Your task to perform on an android device: Open network settings Image 0: 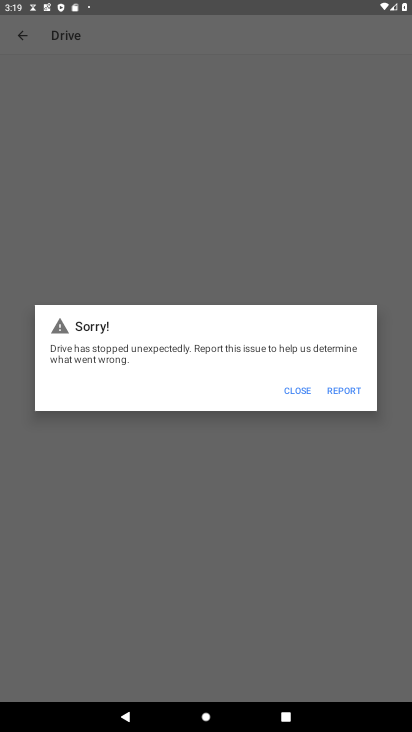
Step 0: press home button
Your task to perform on an android device: Open network settings Image 1: 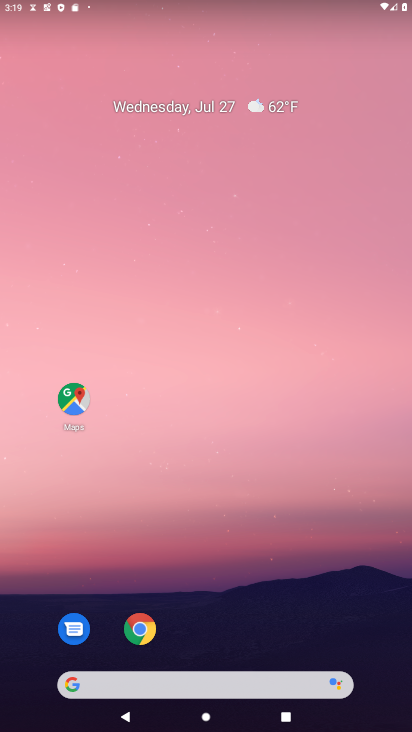
Step 1: drag from (222, 681) to (264, 2)
Your task to perform on an android device: Open network settings Image 2: 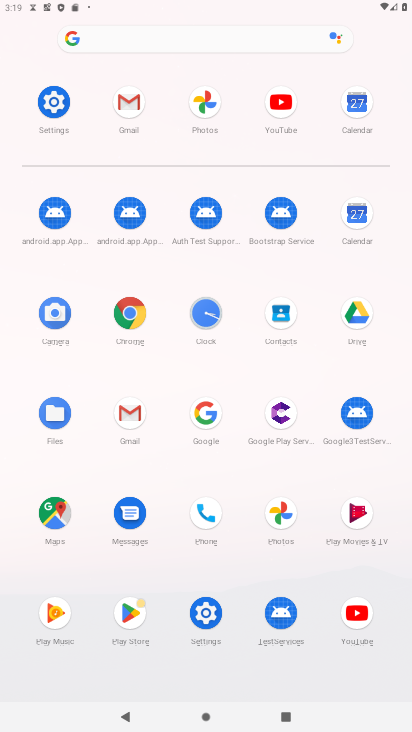
Step 2: click (54, 102)
Your task to perform on an android device: Open network settings Image 3: 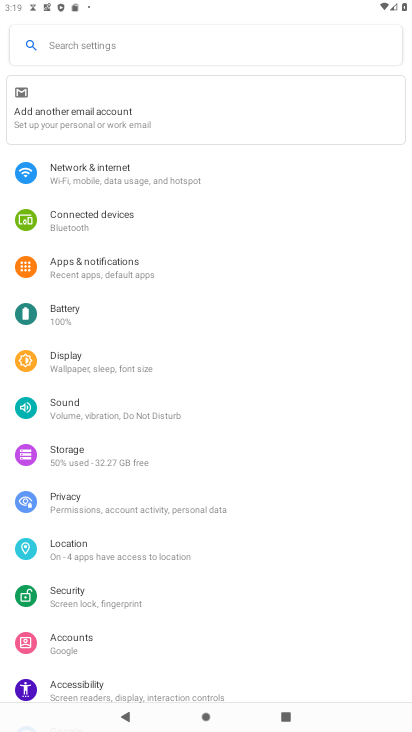
Step 3: click (115, 180)
Your task to perform on an android device: Open network settings Image 4: 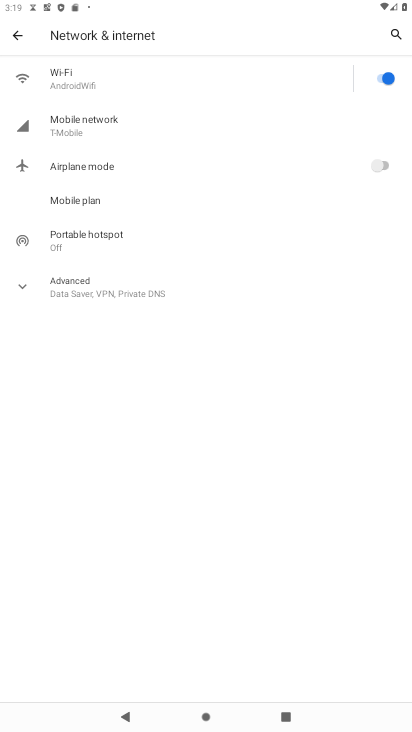
Step 4: task complete